Your task to perform on an android device: turn off location Image 0: 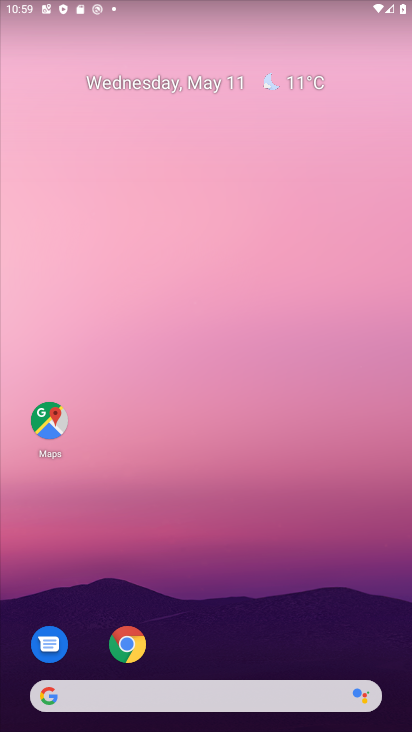
Step 0: drag from (224, 655) to (244, 19)
Your task to perform on an android device: turn off location Image 1: 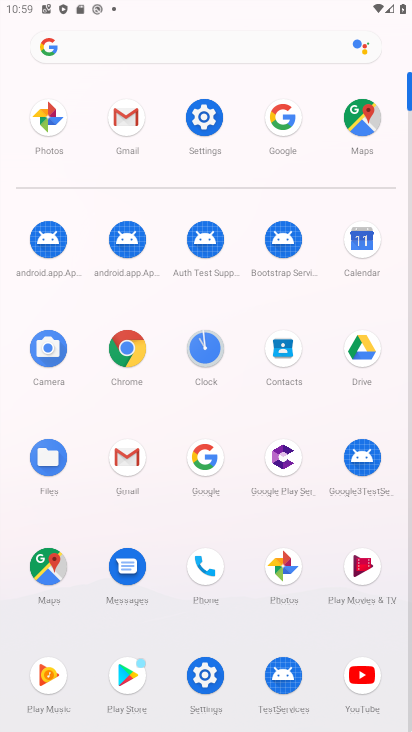
Step 1: click (199, 114)
Your task to perform on an android device: turn off location Image 2: 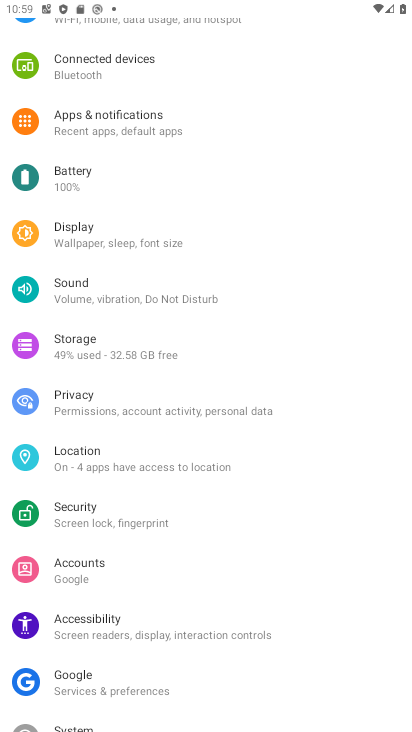
Step 2: click (105, 457)
Your task to perform on an android device: turn off location Image 3: 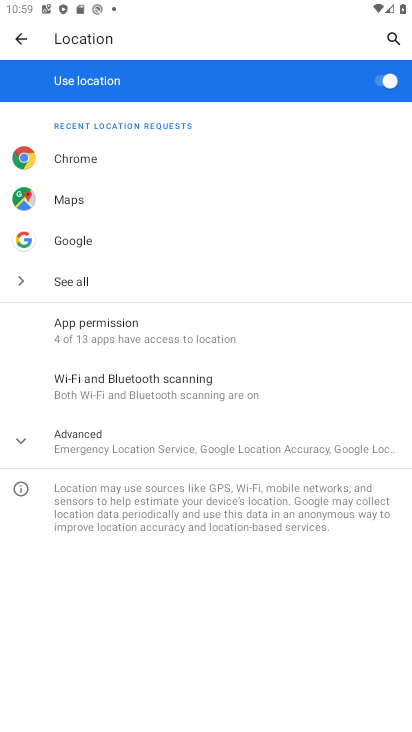
Step 3: click (376, 82)
Your task to perform on an android device: turn off location Image 4: 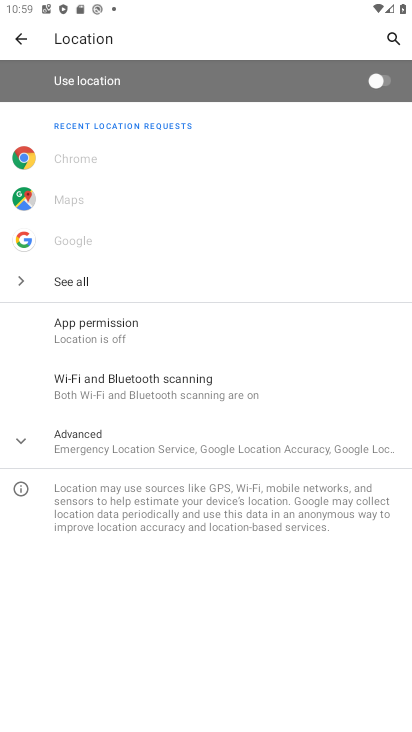
Step 4: task complete